Your task to perform on an android device: Open Maps and search for coffee Image 0: 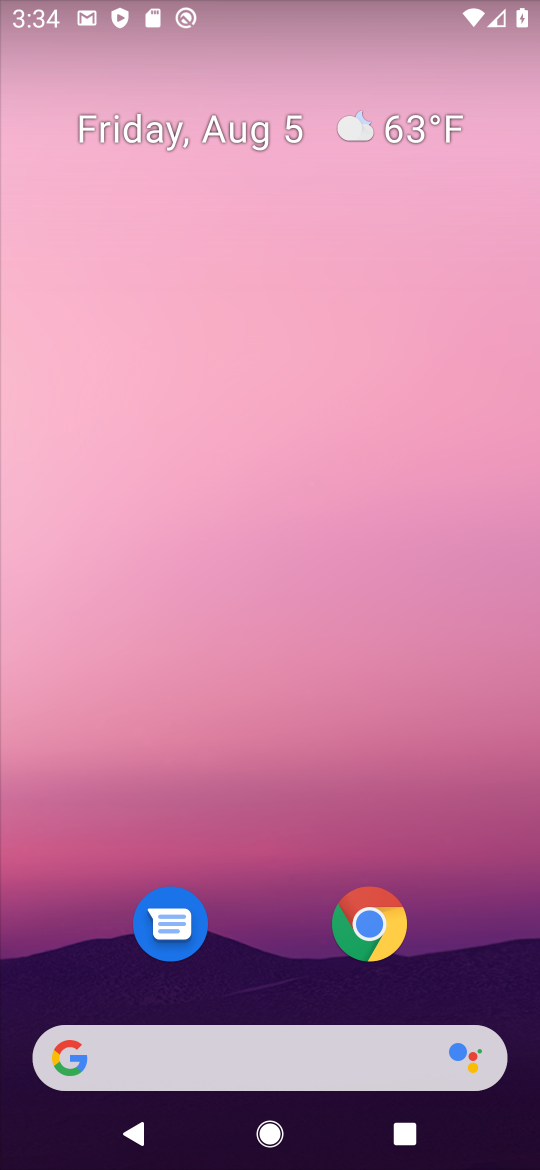
Step 0: press home button
Your task to perform on an android device: Open Maps and search for coffee Image 1: 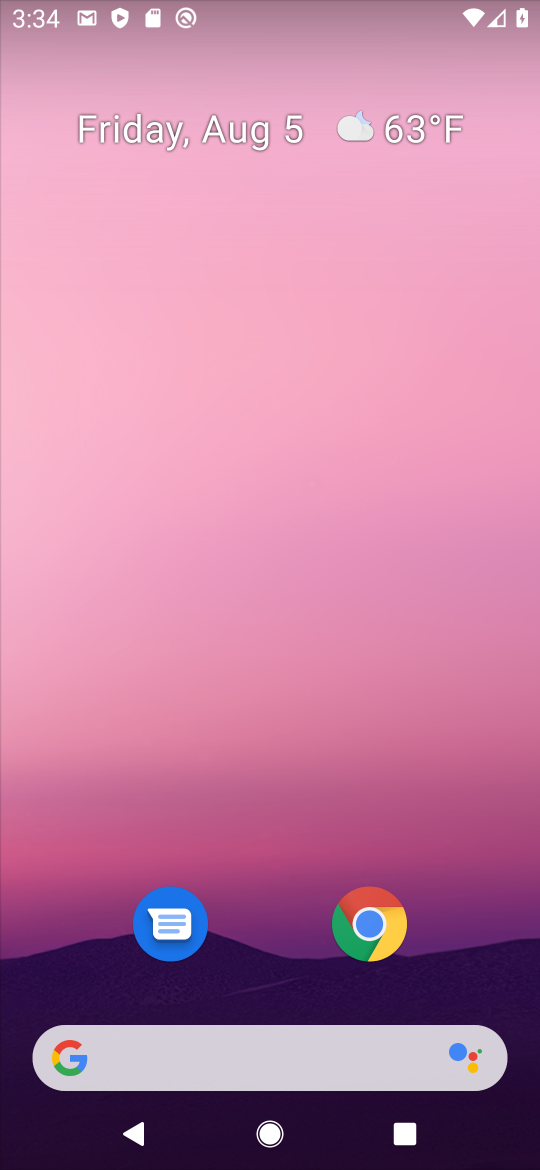
Step 1: drag from (253, 960) to (340, 96)
Your task to perform on an android device: Open Maps and search for coffee Image 2: 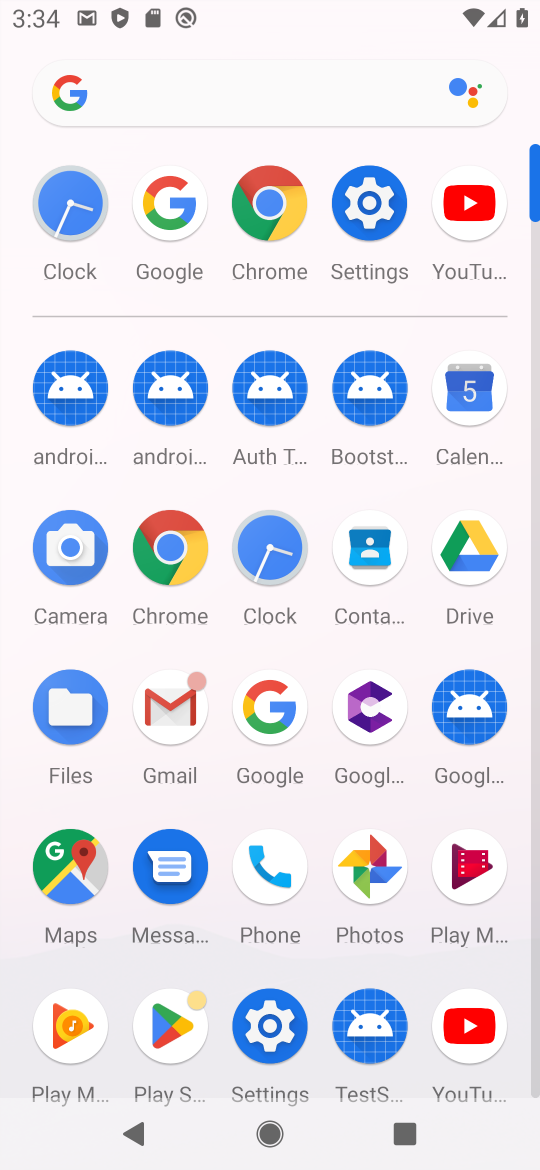
Step 2: click (73, 876)
Your task to perform on an android device: Open Maps and search for coffee Image 3: 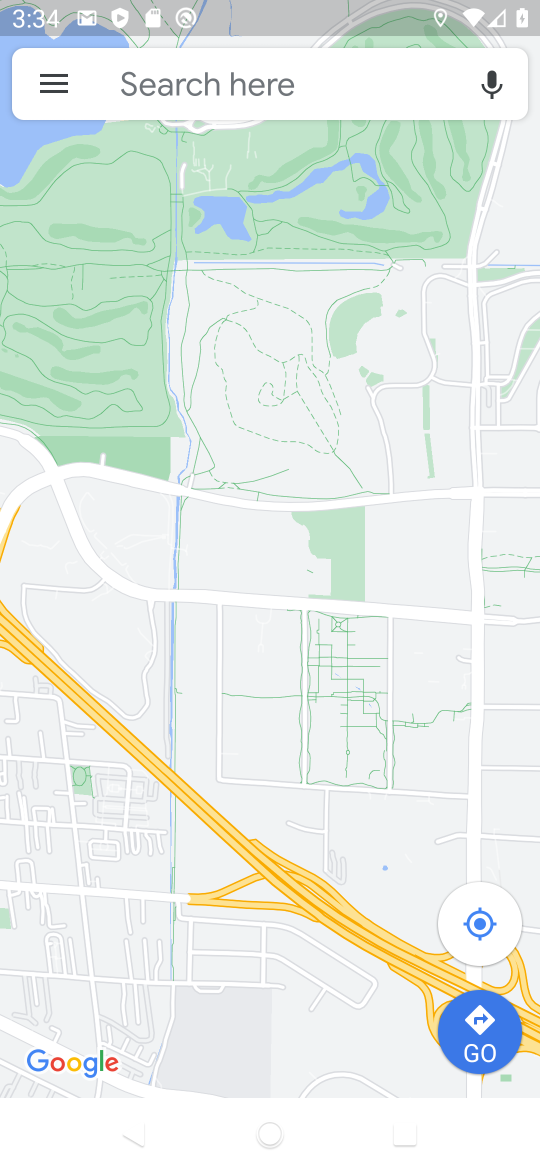
Step 3: click (216, 70)
Your task to perform on an android device: Open Maps and search for coffee Image 4: 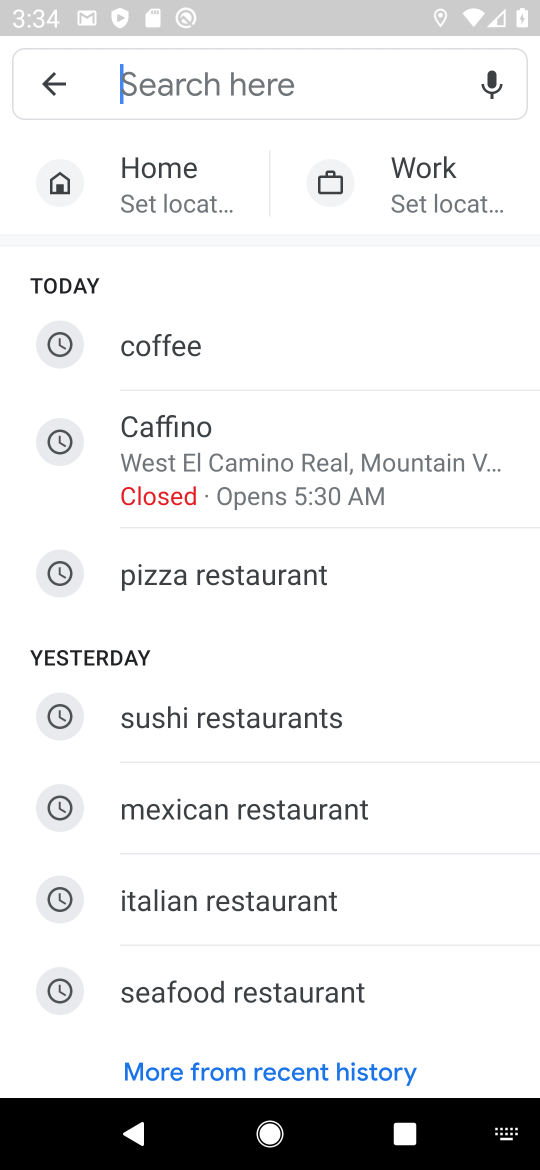
Step 4: click (236, 354)
Your task to perform on an android device: Open Maps and search for coffee Image 5: 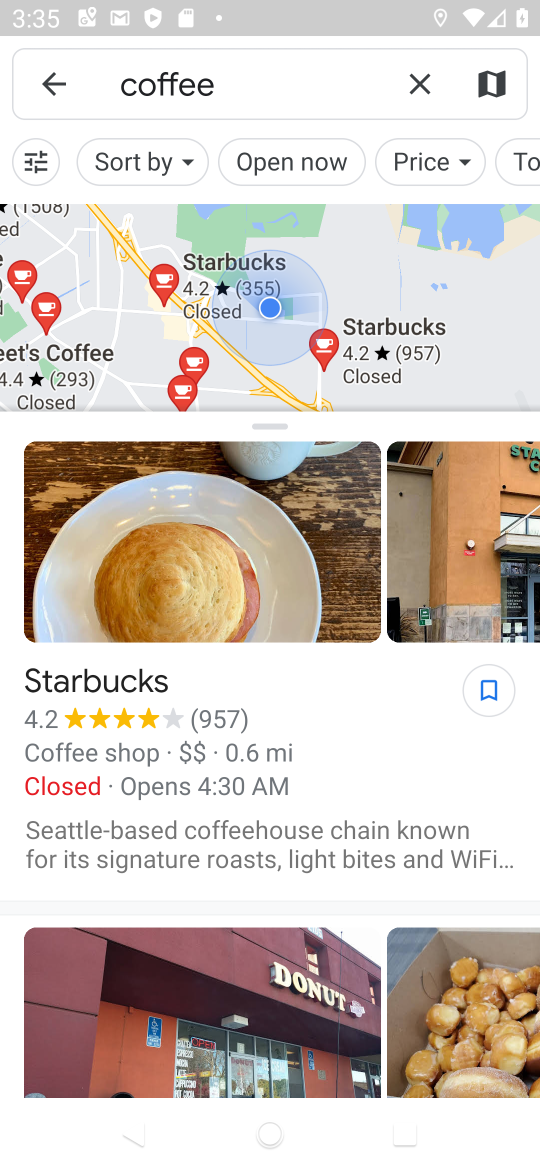
Step 5: task complete